Your task to perform on an android device: turn notification dots on Image 0: 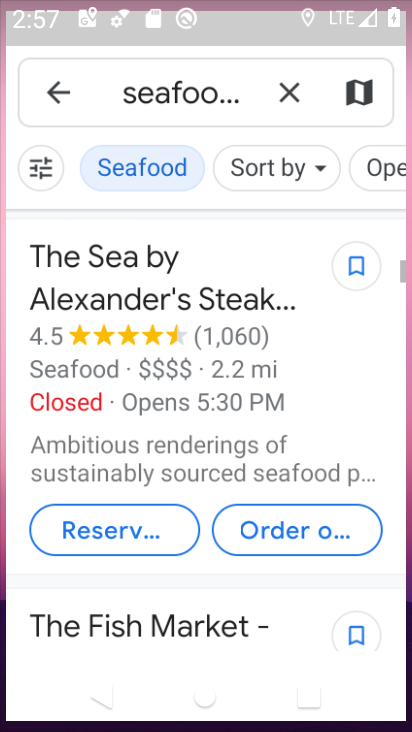
Step 0: press home button
Your task to perform on an android device: turn notification dots on Image 1: 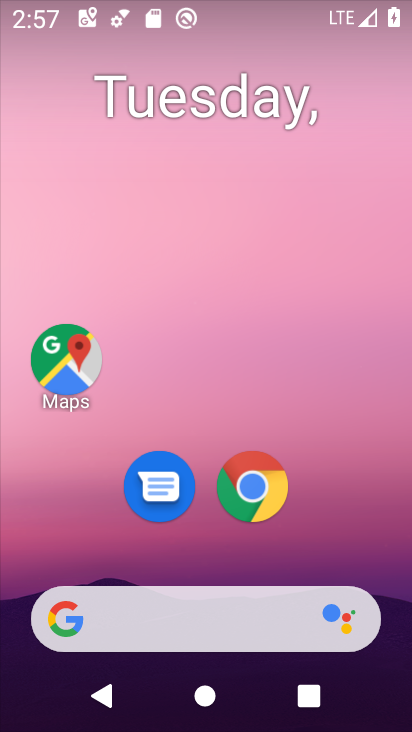
Step 1: drag from (218, 559) to (205, 77)
Your task to perform on an android device: turn notification dots on Image 2: 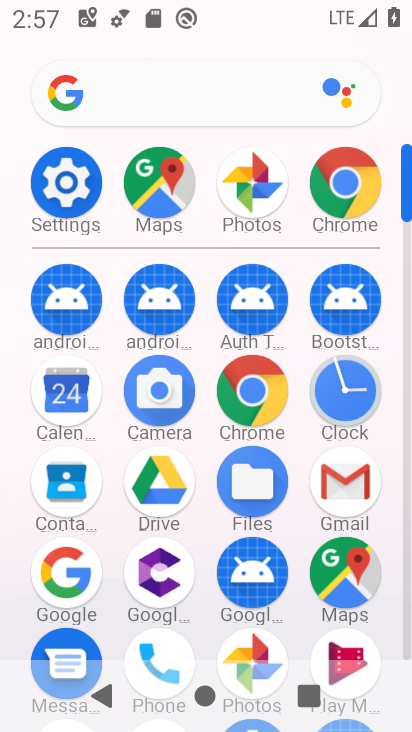
Step 2: click (57, 154)
Your task to perform on an android device: turn notification dots on Image 3: 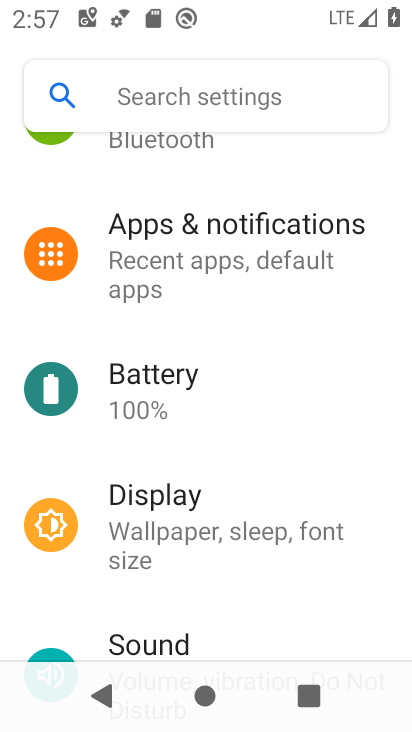
Step 3: click (193, 239)
Your task to perform on an android device: turn notification dots on Image 4: 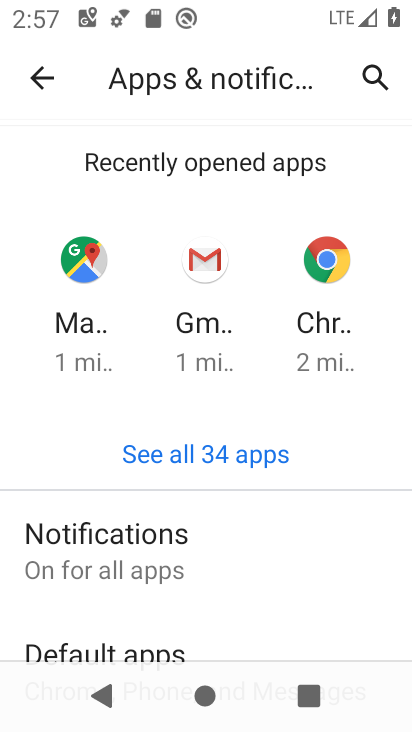
Step 4: drag from (190, 490) to (253, 397)
Your task to perform on an android device: turn notification dots on Image 5: 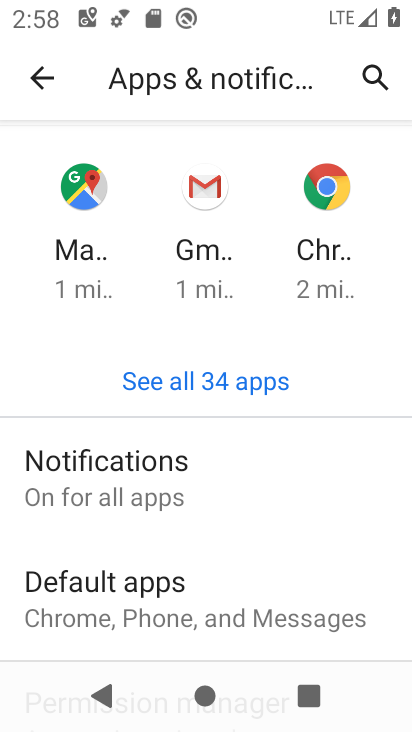
Step 5: click (212, 480)
Your task to perform on an android device: turn notification dots on Image 6: 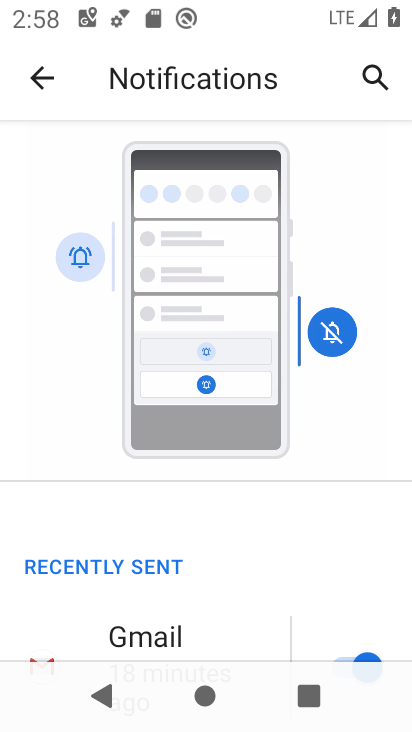
Step 6: drag from (206, 626) to (204, 244)
Your task to perform on an android device: turn notification dots on Image 7: 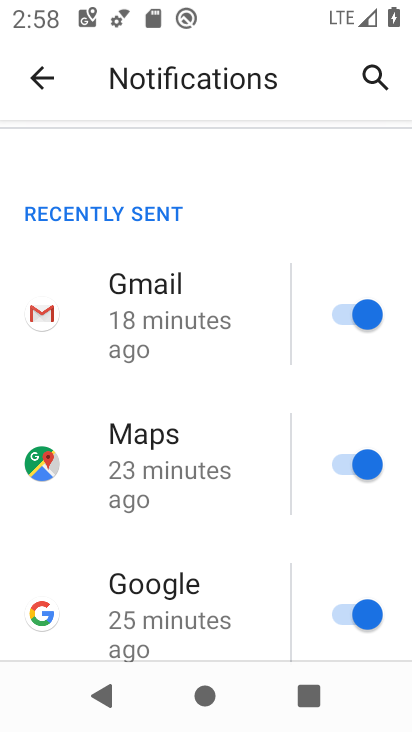
Step 7: drag from (229, 615) to (248, 278)
Your task to perform on an android device: turn notification dots on Image 8: 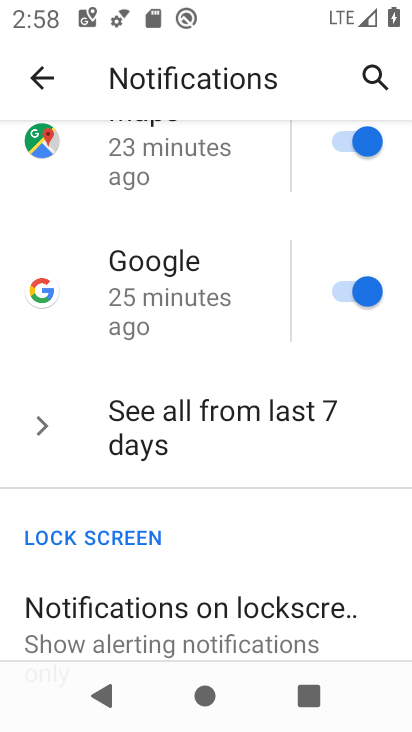
Step 8: drag from (234, 617) to (244, 224)
Your task to perform on an android device: turn notification dots on Image 9: 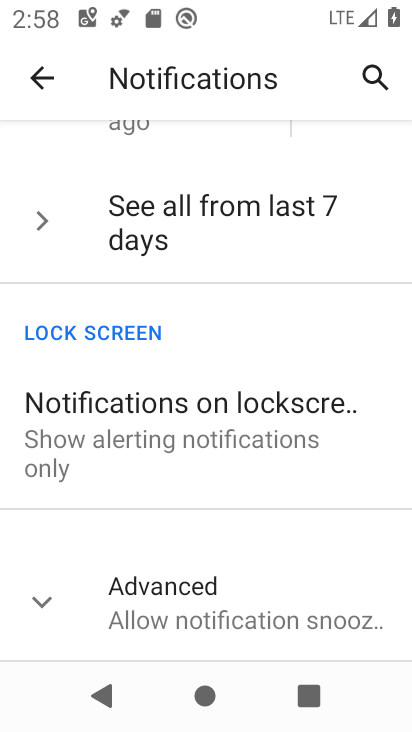
Step 9: click (52, 600)
Your task to perform on an android device: turn notification dots on Image 10: 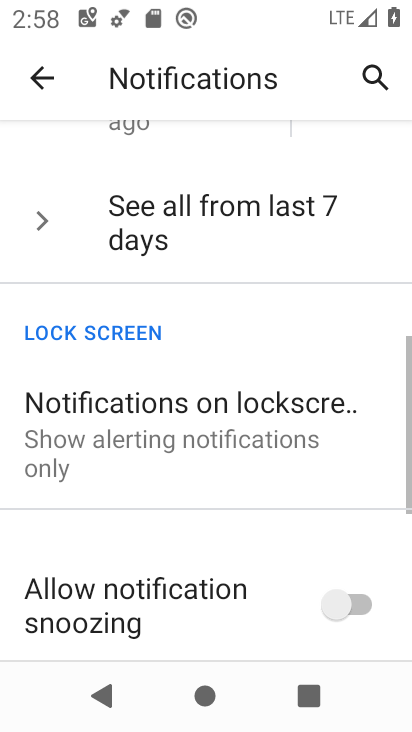
Step 10: task complete